Your task to perform on an android device: toggle translation in the chrome app Image 0: 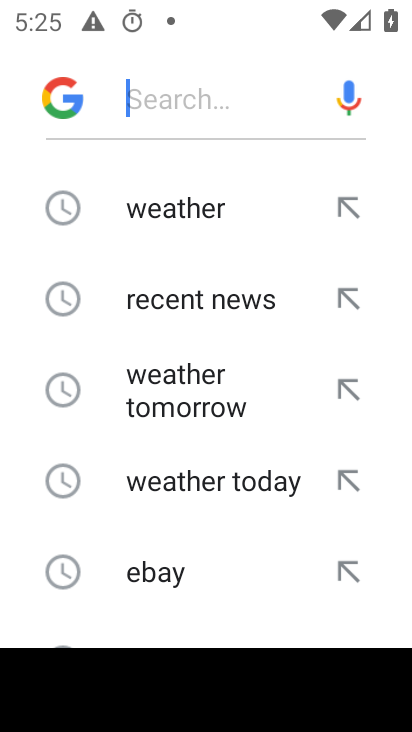
Step 0: press home button
Your task to perform on an android device: toggle translation in the chrome app Image 1: 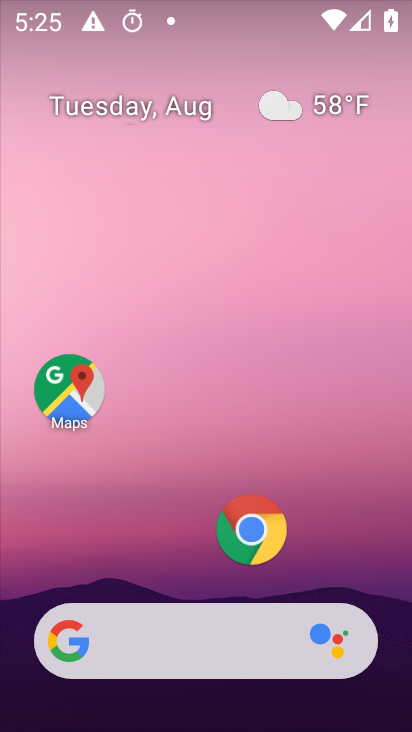
Step 1: click (253, 511)
Your task to perform on an android device: toggle translation in the chrome app Image 2: 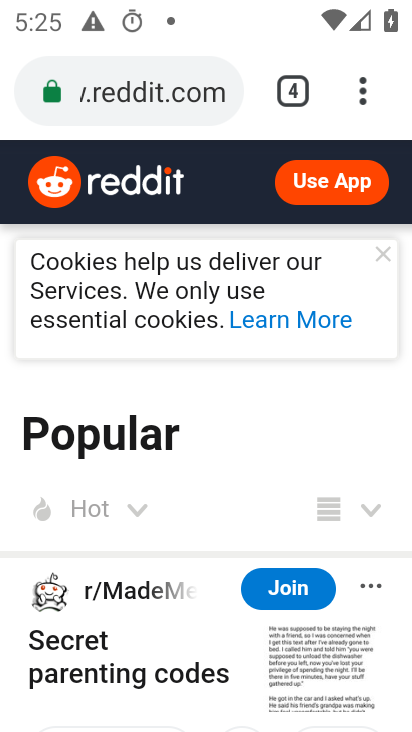
Step 2: click (358, 99)
Your task to perform on an android device: toggle translation in the chrome app Image 3: 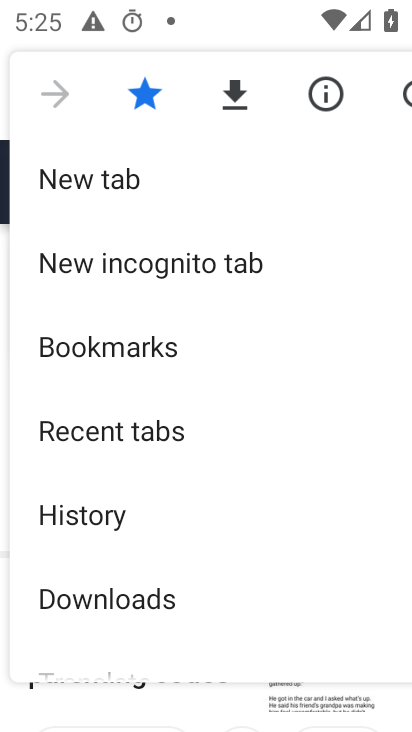
Step 3: drag from (138, 592) to (153, 247)
Your task to perform on an android device: toggle translation in the chrome app Image 4: 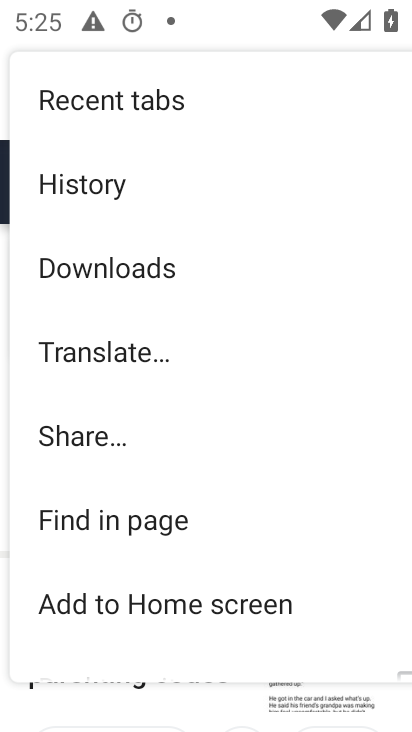
Step 4: drag from (126, 613) to (127, 227)
Your task to perform on an android device: toggle translation in the chrome app Image 5: 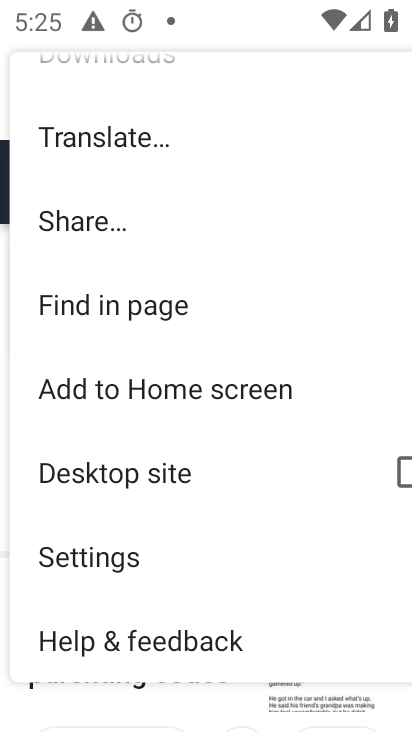
Step 5: click (122, 569)
Your task to perform on an android device: toggle translation in the chrome app Image 6: 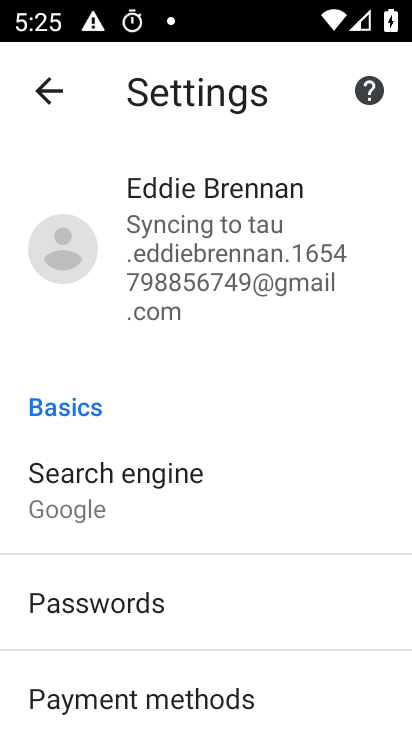
Step 6: drag from (130, 570) to (156, 252)
Your task to perform on an android device: toggle translation in the chrome app Image 7: 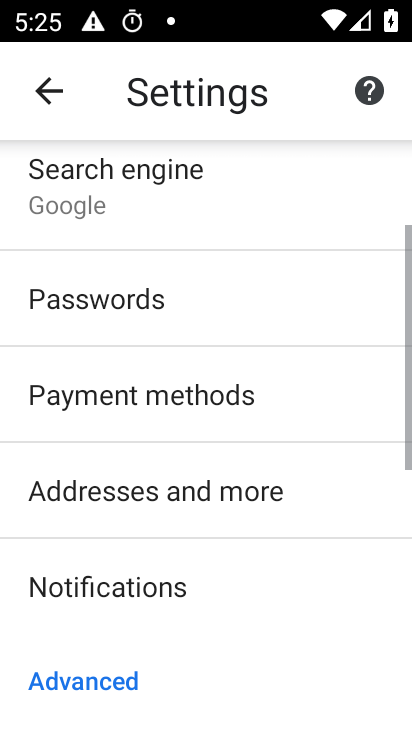
Step 7: drag from (165, 571) to (174, 253)
Your task to perform on an android device: toggle translation in the chrome app Image 8: 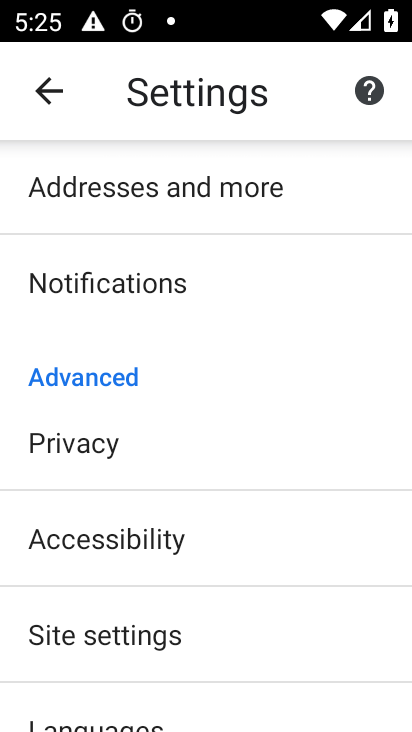
Step 8: drag from (166, 617) to (192, 330)
Your task to perform on an android device: toggle translation in the chrome app Image 9: 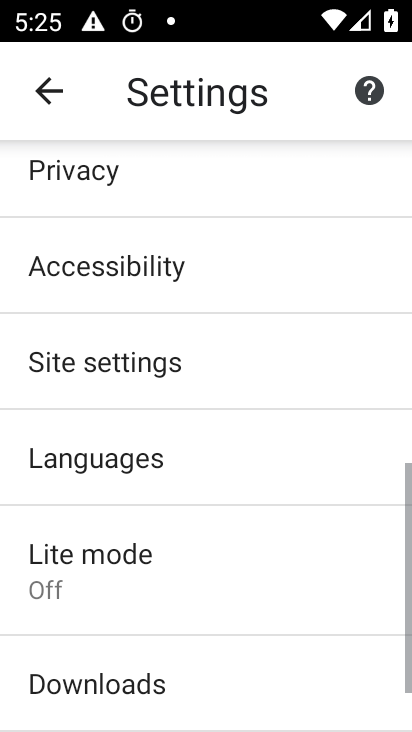
Step 9: click (169, 468)
Your task to perform on an android device: toggle translation in the chrome app Image 10: 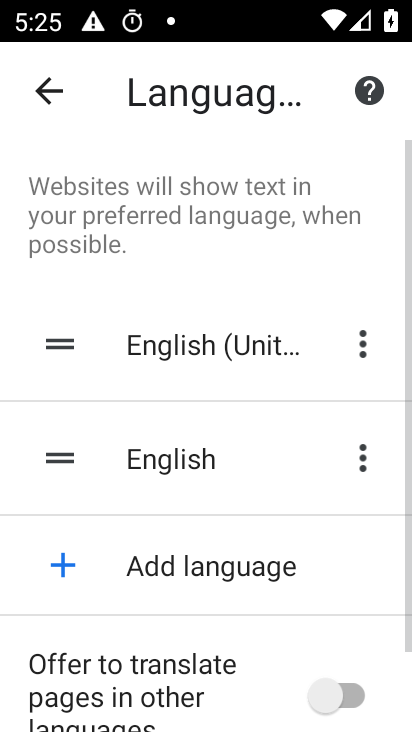
Step 10: task complete